Your task to perform on an android device: Go to calendar. Show me events next week Image 0: 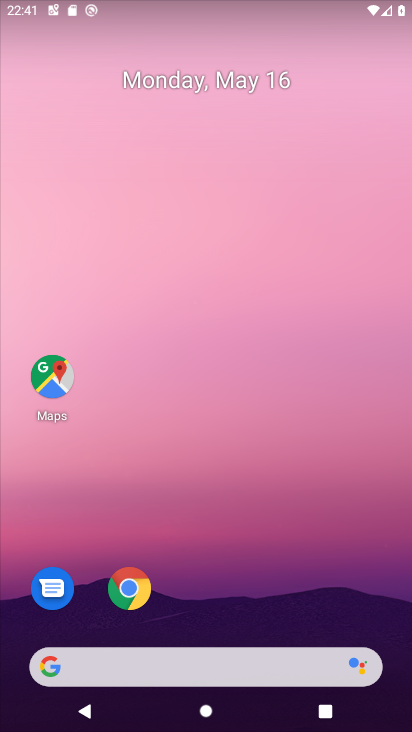
Step 0: press home button
Your task to perform on an android device: Go to calendar. Show me events next week Image 1: 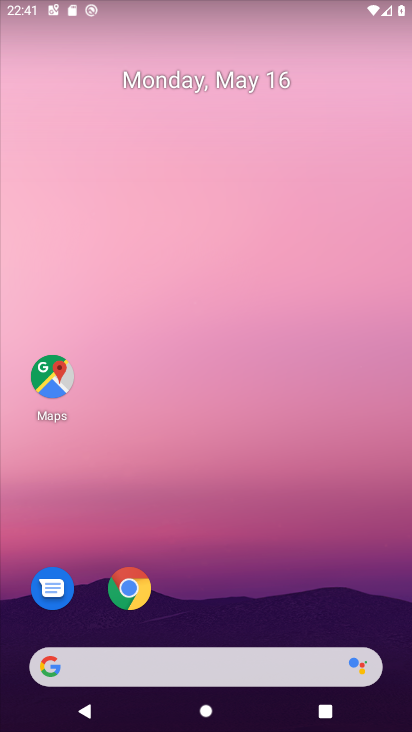
Step 1: drag from (210, 631) to (271, 1)
Your task to perform on an android device: Go to calendar. Show me events next week Image 2: 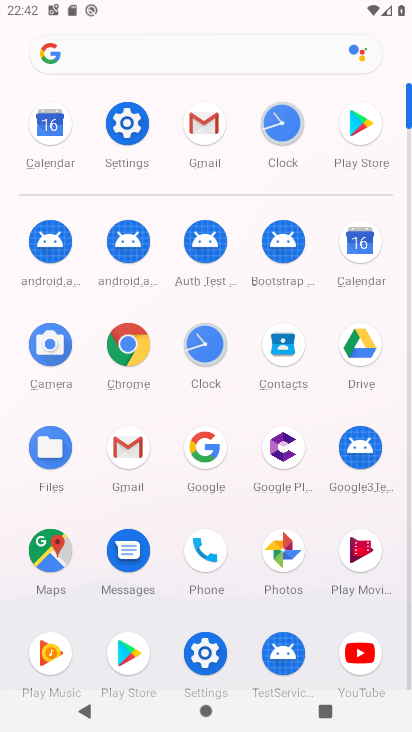
Step 2: click (361, 239)
Your task to perform on an android device: Go to calendar. Show me events next week Image 3: 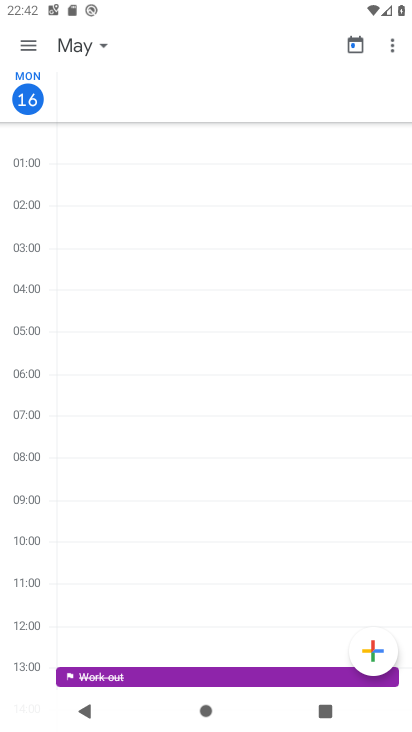
Step 3: click (26, 42)
Your task to perform on an android device: Go to calendar. Show me events next week Image 4: 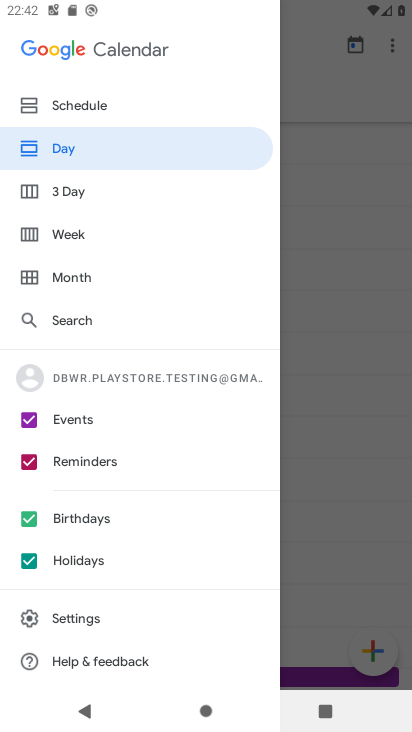
Step 4: click (91, 236)
Your task to perform on an android device: Go to calendar. Show me events next week Image 5: 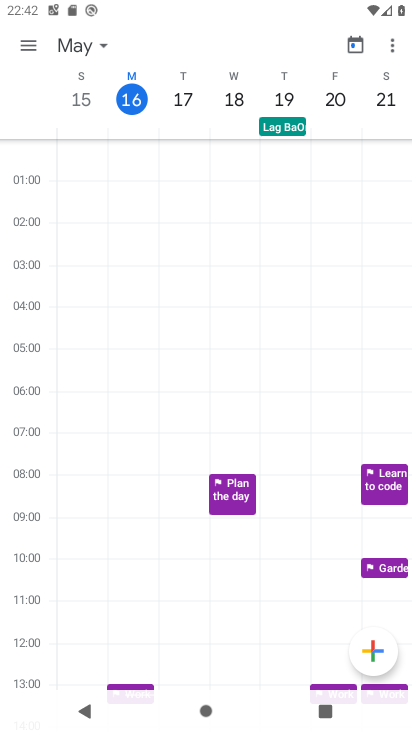
Step 5: drag from (388, 101) to (43, 104)
Your task to perform on an android device: Go to calendar. Show me events next week Image 6: 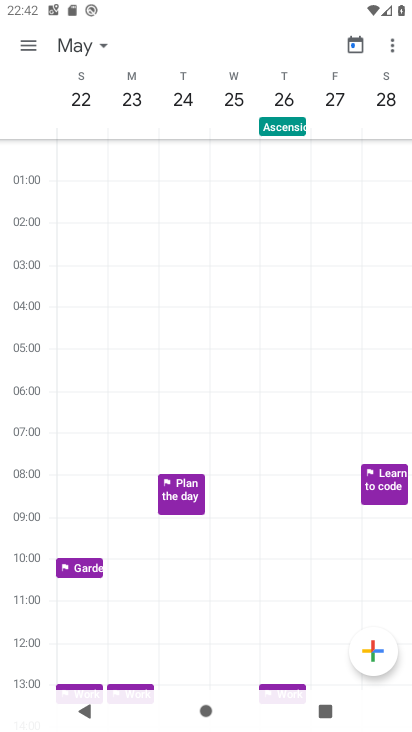
Step 6: click (77, 94)
Your task to perform on an android device: Go to calendar. Show me events next week Image 7: 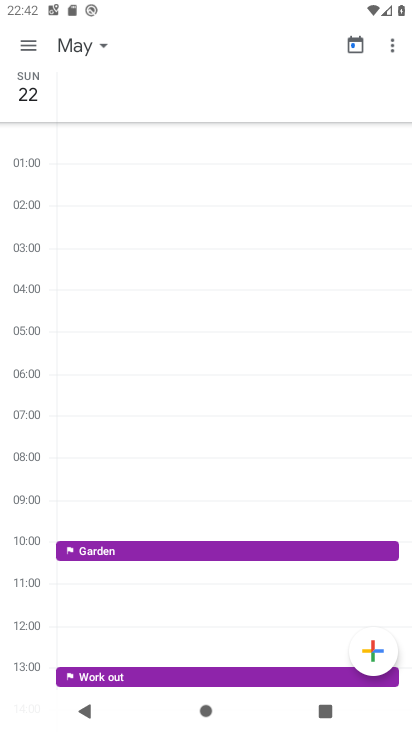
Step 7: click (43, 92)
Your task to perform on an android device: Go to calendar. Show me events next week Image 8: 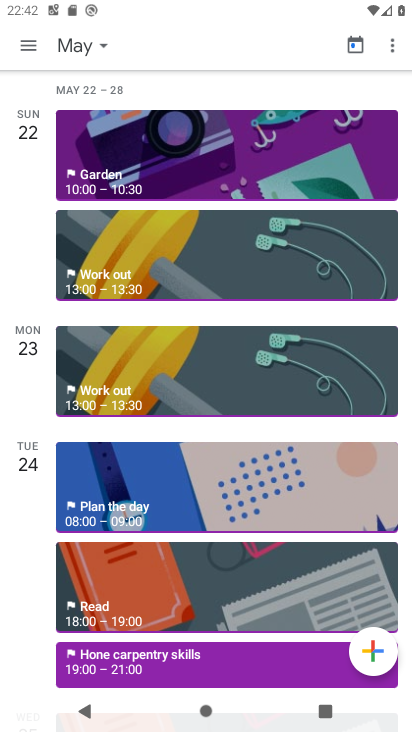
Step 8: task complete